Your task to perform on an android device: visit the assistant section in the google photos Image 0: 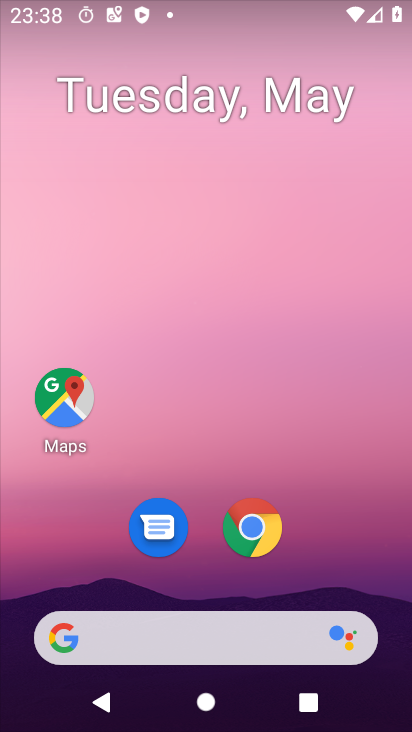
Step 0: click (376, 196)
Your task to perform on an android device: visit the assistant section in the google photos Image 1: 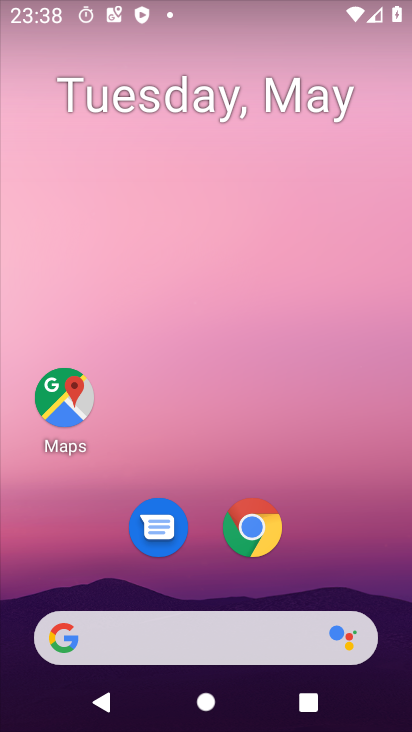
Step 1: drag from (213, 434) to (253, 189)
Your task to perform on an android device: visit the assistant section in the google photos Image 2: 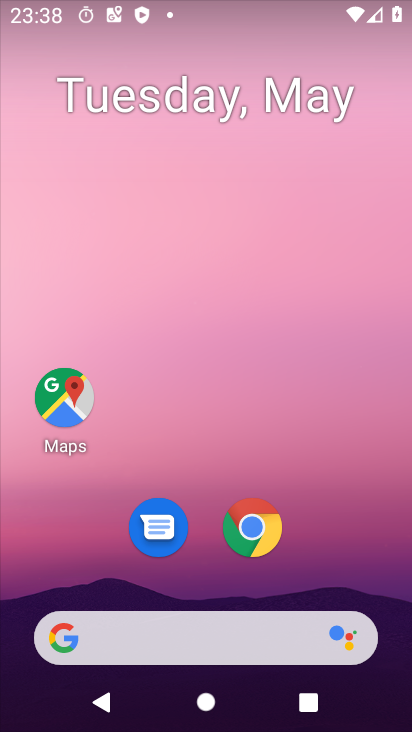
Step 2: drag from (197, 580) to (208, 122)
Your task to perform on an android device: visit the assistant section in the google photos Image 3: 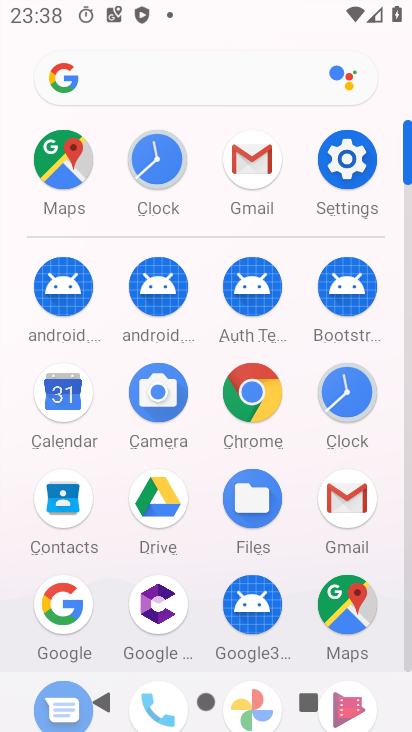
Step 3: drag from (207, 587) to (188, 300)
Your task to perform on an android device: visit the assistant section in the google photos Image 4: 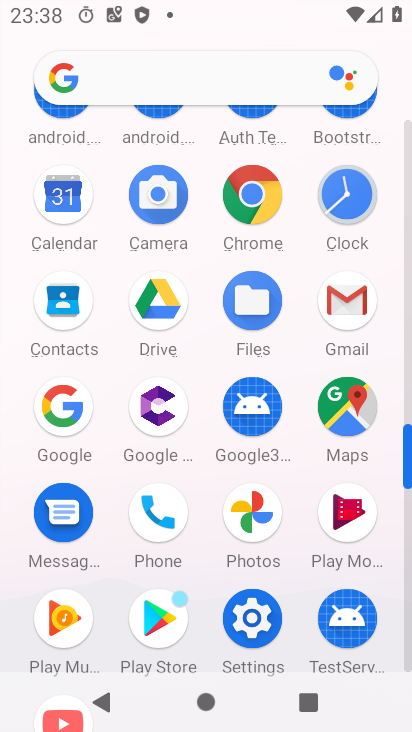
Step 4: click (239, 507)
Your task to perform on an android device: visit the assistant section in the google photos Image 5: 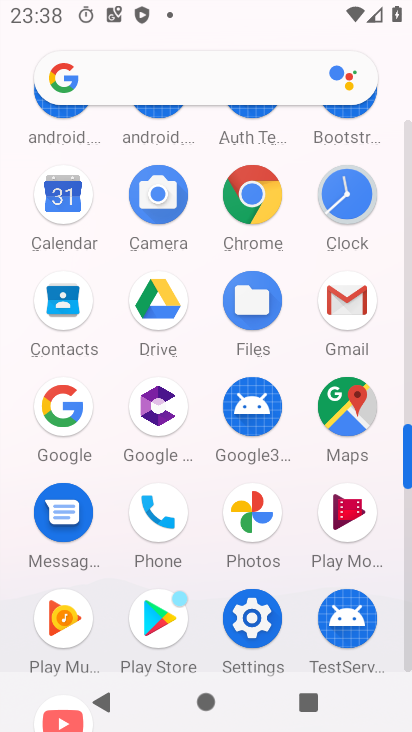
Step 5: click (239, 507)
Your task to perform on an android device: visit the assistant section in the google photos Image 6: 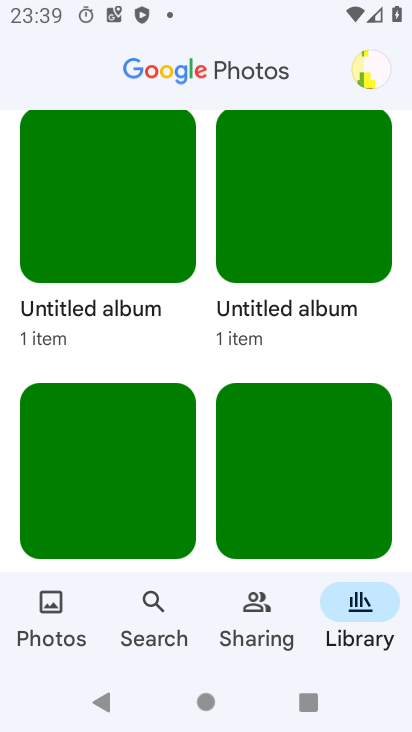
Step 6: drag from (200, 210) to (216, 553)
Your task to perform on an android device: visit the assistant section in the google photos Image 7: 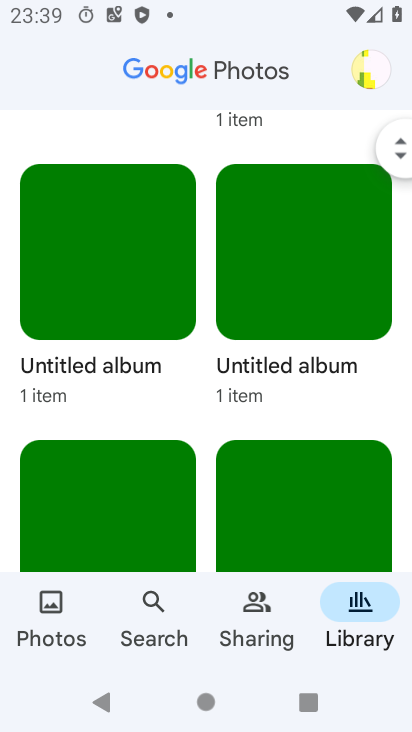
Step 7: drag from (202, 240) to (211, 629)
Your task to perform on an android device: visit the assistant section in the google photos Image 8: 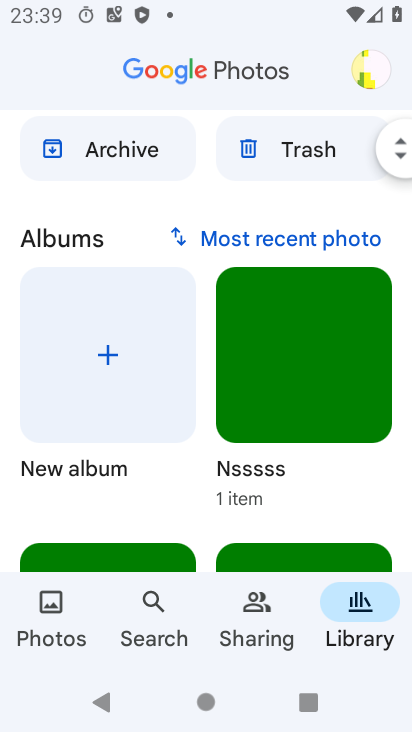
Step 8: drag from (205, 194) to (214, 436)
Your task to perform on an android device: visit the assistant section in the google photos Image 9: 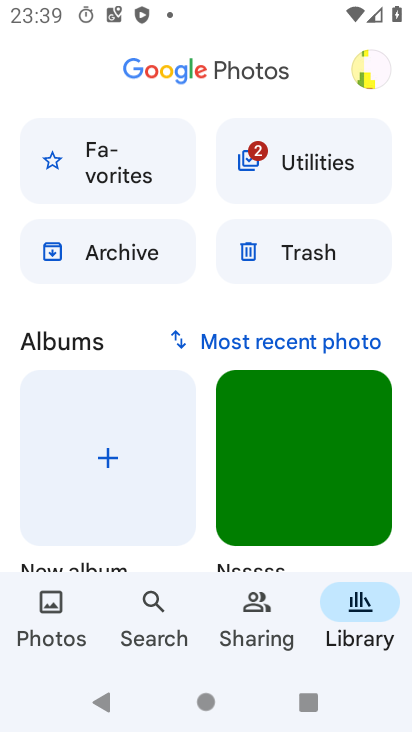
Step 9: drag from (199, 90) to (220, 453)
Your task to perform on an android device: visit the assistant section in the google photos Image 10: 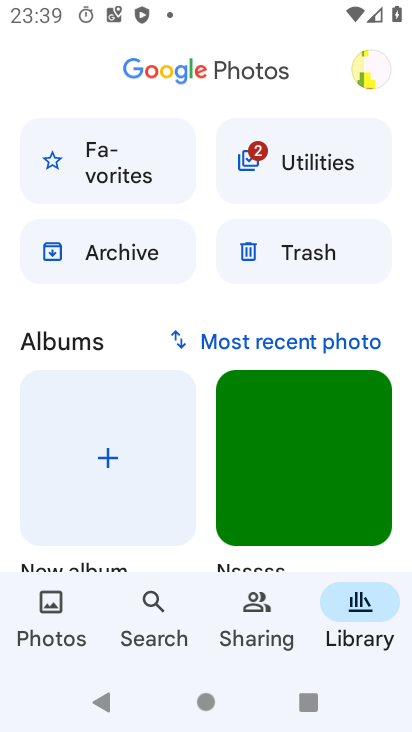
Step 10: drag from (201, 108) to (216, 591)
Your task to perform on an android device: visit the assistant section in the google photos Image 11: 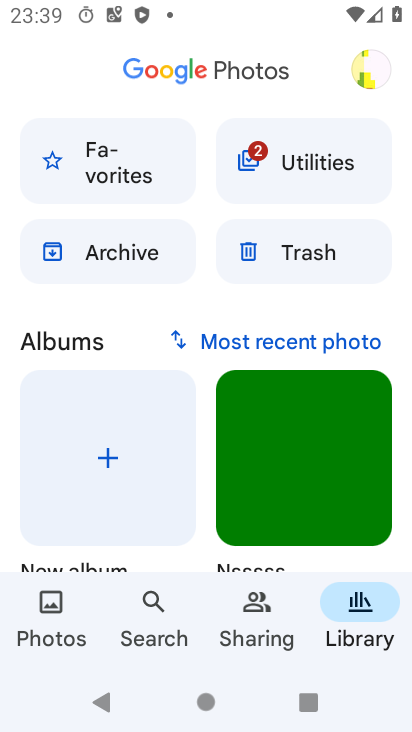
Step 11: drag from (214, 329) to (227, 201)
Your task to perform on an android device: visit the assistant section in the google photos Image 12: 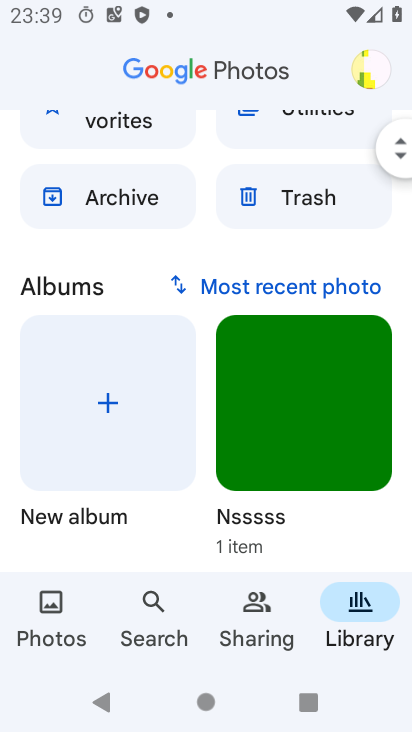
Step 12: drag from (186, 491) to (217, 220)
Your task to perform on an android device: visit the assistant section in the google photos Image 13: 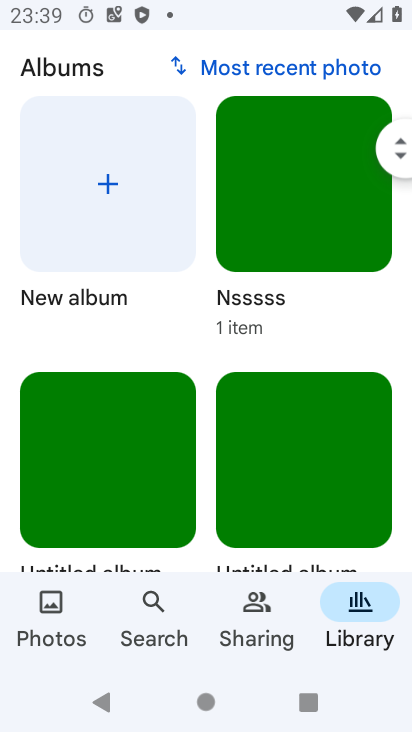
Step 13: click (352, 634)
Your task to perform on an android device: visit the assistant section in the google photos Image 14: 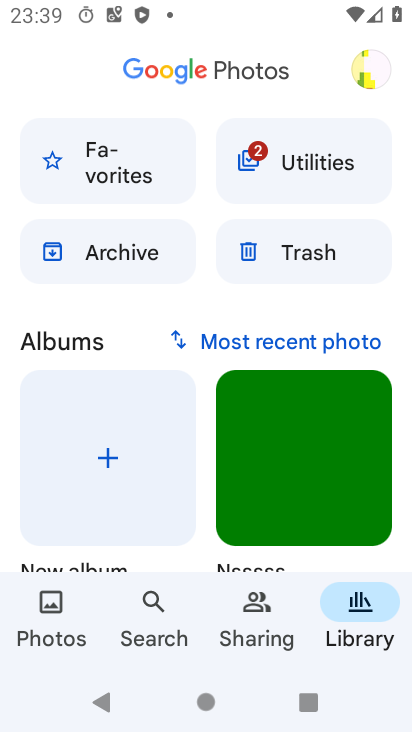
Step 14: task complete